Your task to perform on an android device: Open Amazon Image 0: 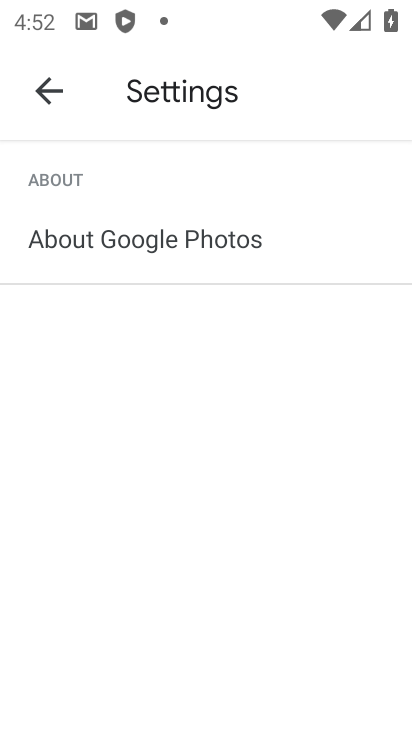
Step 0: press home button
Your task to perform on an android device: Open Amazon Image 1: 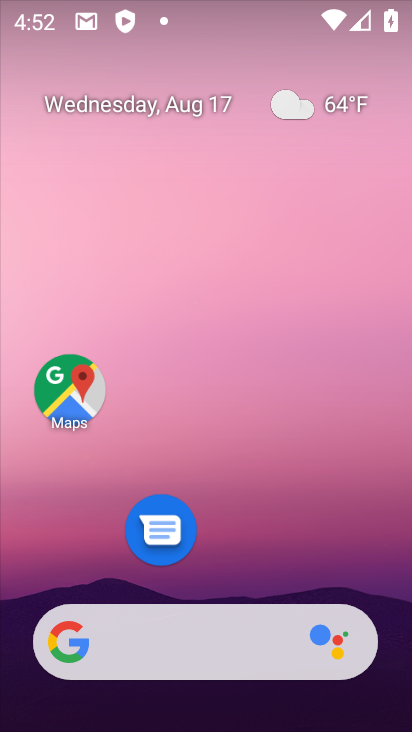
Step 1: drag from (200, 361) to (190, 115)
Your task to perform on an android device: Open Amazon Image 2: 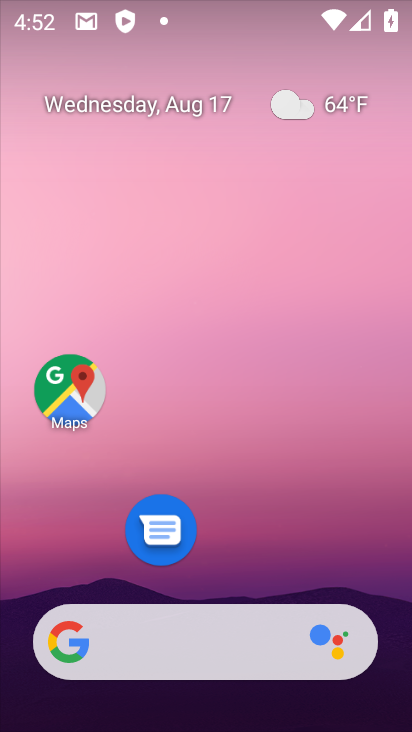
Step 2: drag from (208, 574) to (204, 82)
Your task to perform on an android device: Open Amazon Image 3: 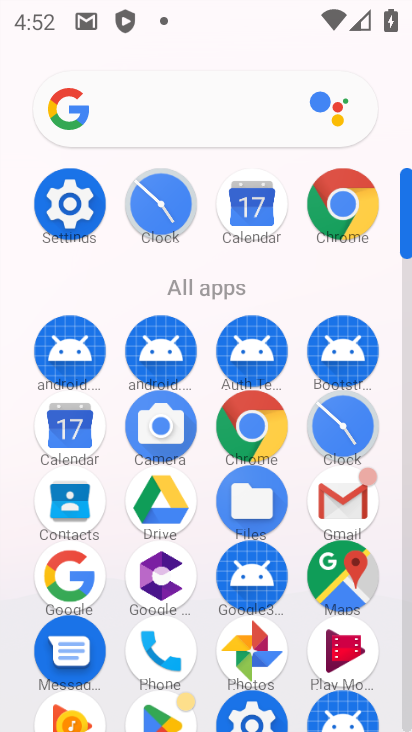
Step 3: click (341, 205)
Your task to perform on an android device: Open Amazon Image 4: 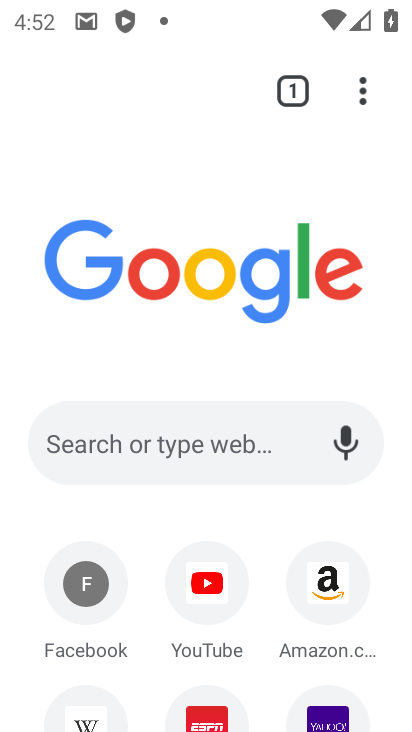
Step 4: click (328, 597)
Your task to perform on an android device: Open Amazon Image 5: 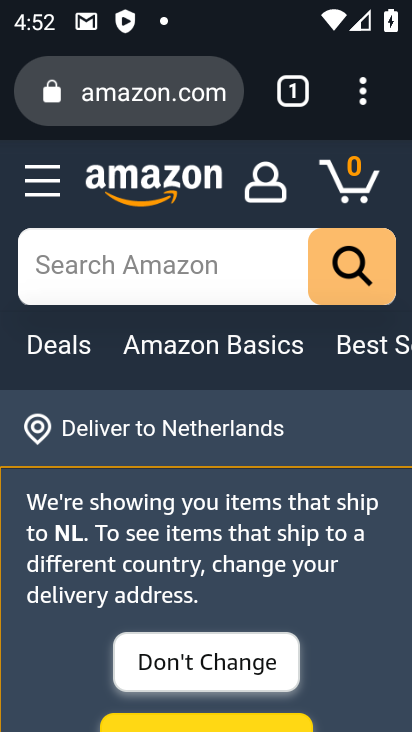
Step 5: task complete